Your task to perform on an android device: See recent photos Image 0: 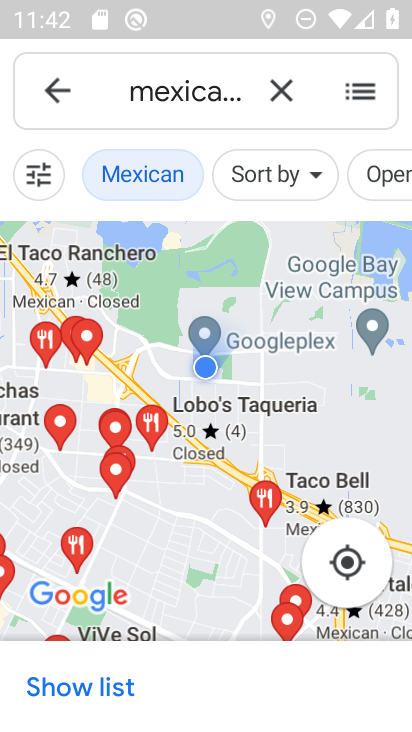
Step 0: press home button
Your task to perform on an android device: See recent photos Image 1: 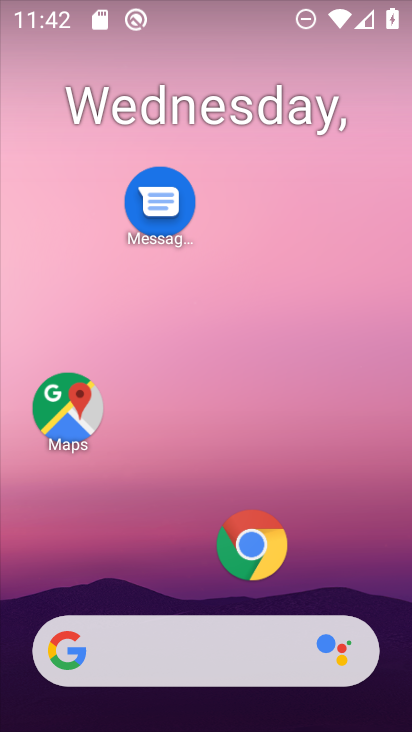
Step 1: drag from (180, 579) to (228, 231)
Your task to perform on an android device: See recent photos Image 2: 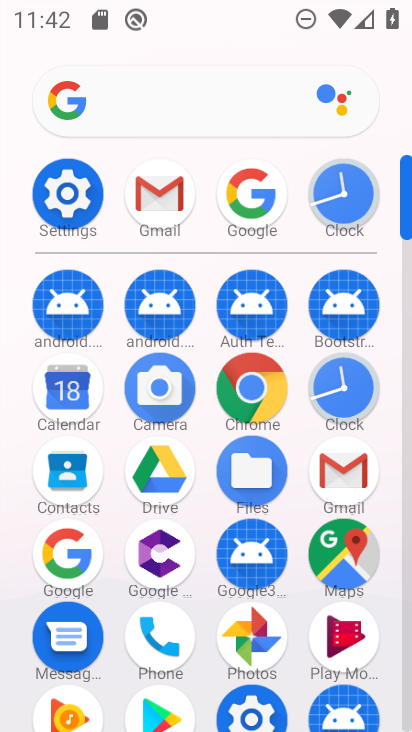
Step 2: click (223, 614)
Your task to perform on an android device: See recent photos Image 3: 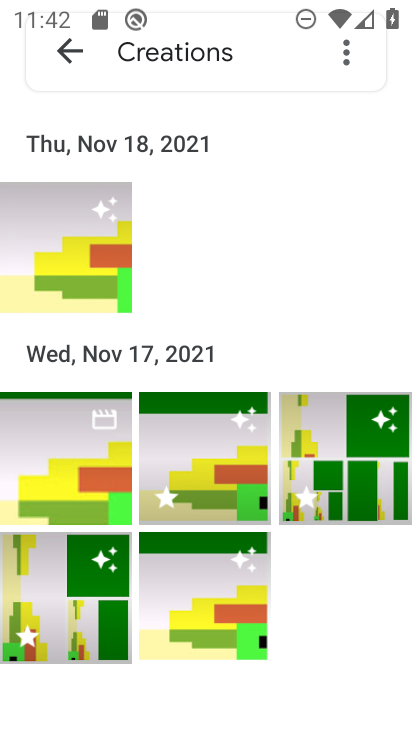
Step 3: drag from (235, 213) to (253, 447)
Your task to perform on an android device: See recent photos Image 4: 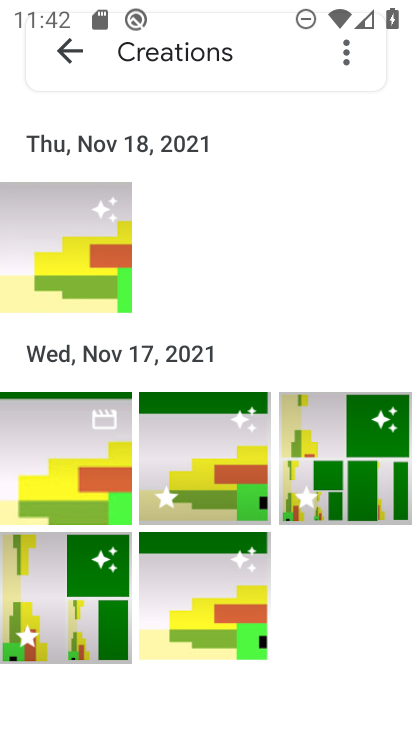
Step 4: drag from (251, 241) to (269, 500)
Your task to perform on an android device: See recent photos Image 5: 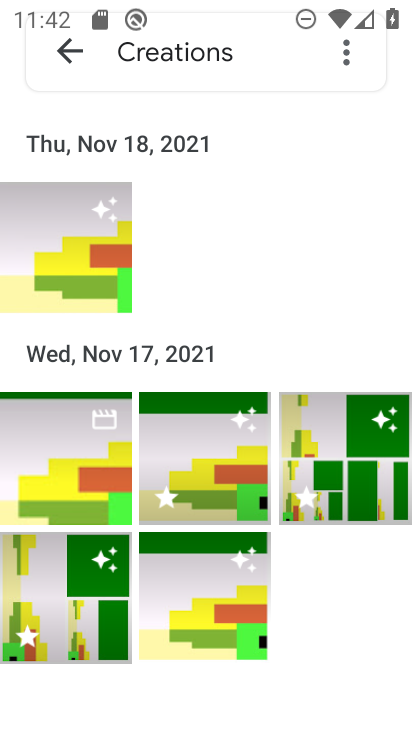
Step 5: drag from (257, 455) to (279, 362)
Your task to perform on an android device: See recent photos Image 6: 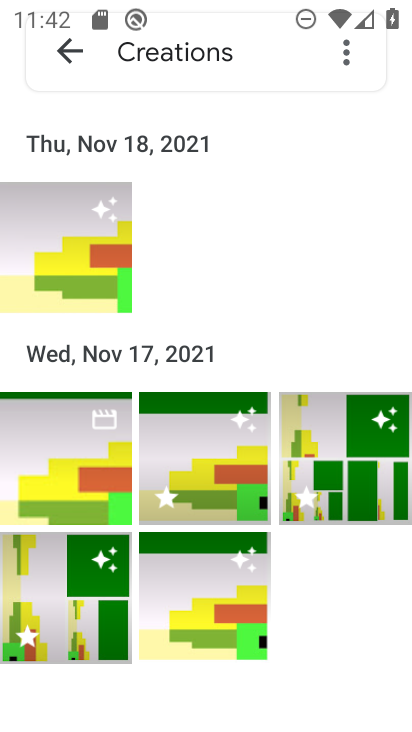
Step 6: click (63, 48)
Your task to perform on an android device: See recent photos Image 7: 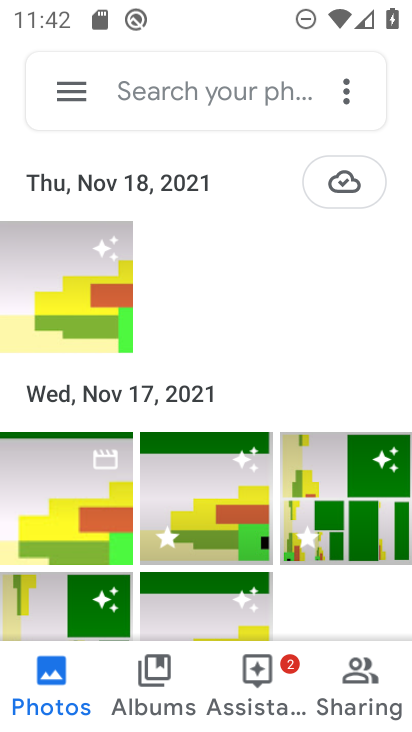
Step 7: task complete